Your task to perform on an android device: change the upload size in google photos Image 0: 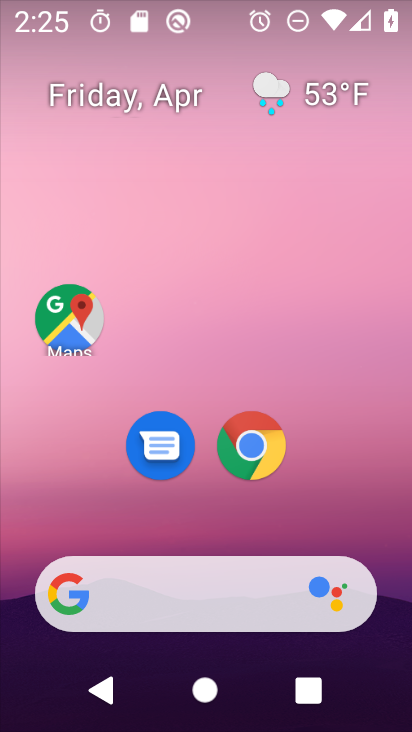
Step 0: drag from (342, 507) to (348, 160)
Your task to perform on an android device: change the upload size in google photos Image 1: 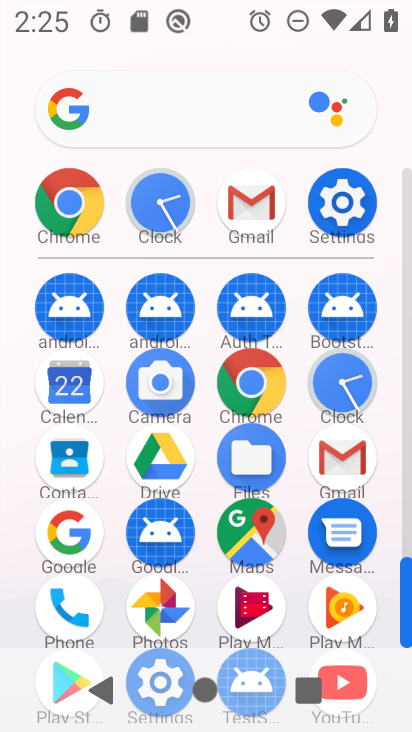
Step 1: drag from (390, 496) to (390, 254)
Your task to perform on an android device: change the upload size in google photos Image 2: 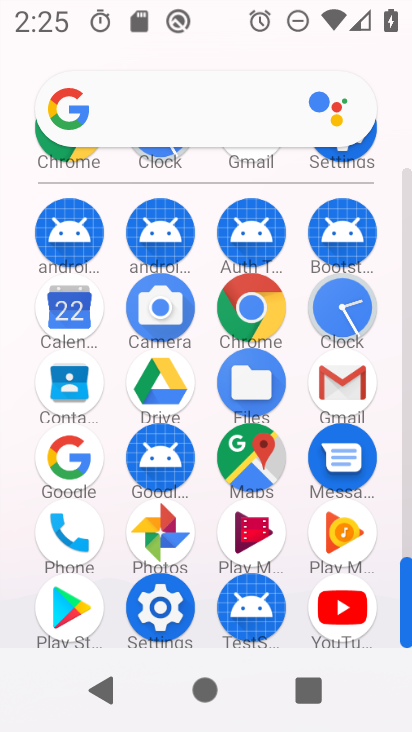
Step 2: click (165, 537)
Your task to perform on an android device: change the upload size in google photos Image 3: 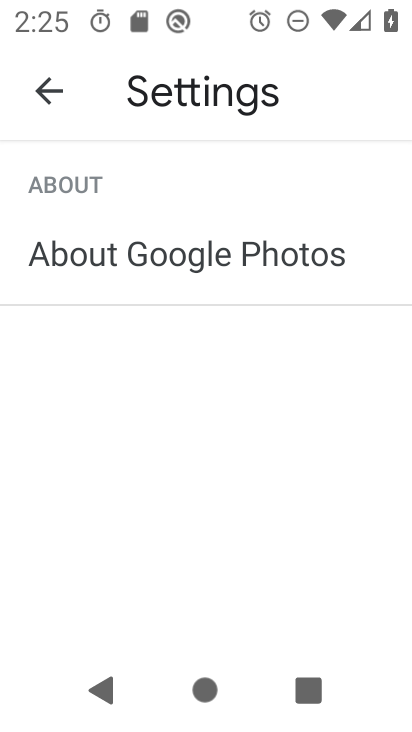
Step 3: click (44, 96)
Your task to perform on an android device: change the upload size in google photos Image 4: 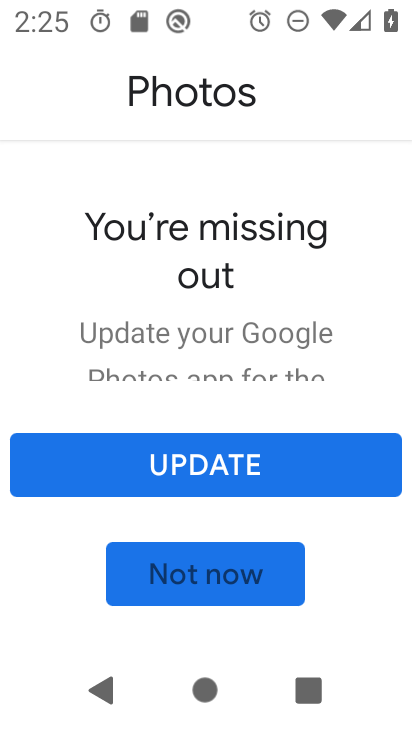
Step 4: click (217, 464)
Your task to perform on an android device: change the upload size in google photos Image 5: 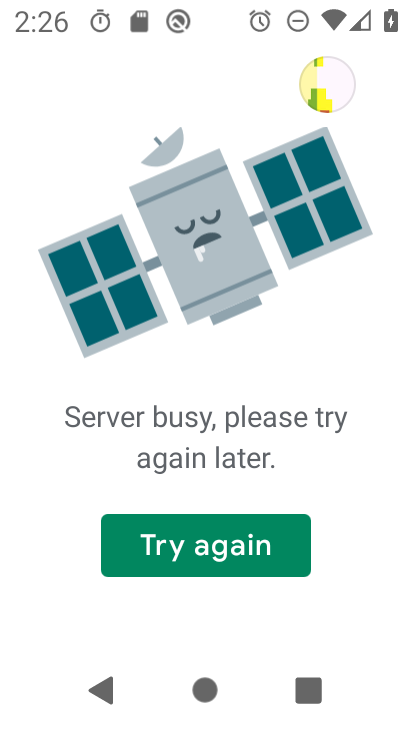
Step 5: task complete